Your task to perform on an android device: delete a single message in the gmail app Image 0: 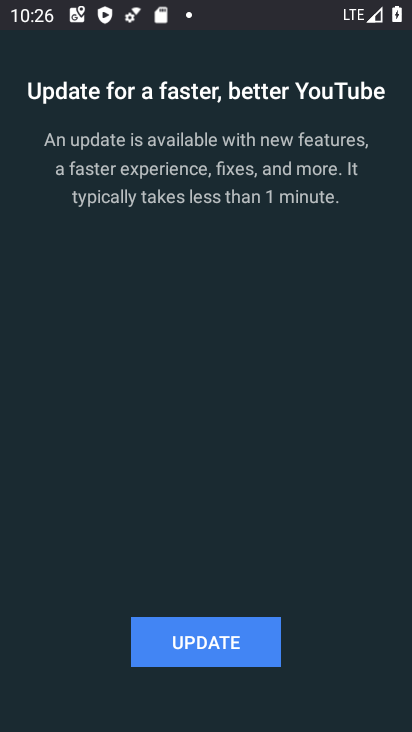
Step 0: press back button
Your task to perform on an android device: delete a single message in the gmail app Image 1: 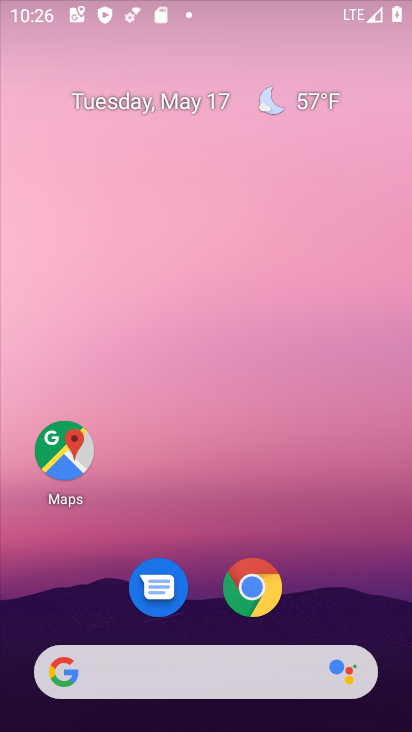
Step 1: drag from (366, 635) to (279, 93)
Your task to perform on an android device: delete a single message in the gmail app Image 2: 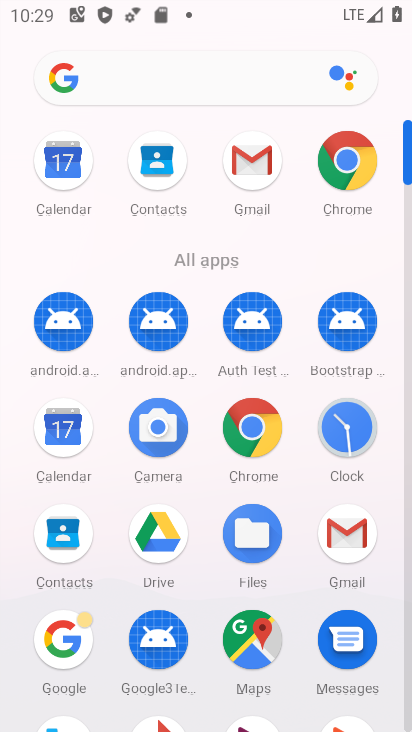
Step 2: click (321, 544)
Your task to perform on an android device: delete a single message in the gmail app Image 3: 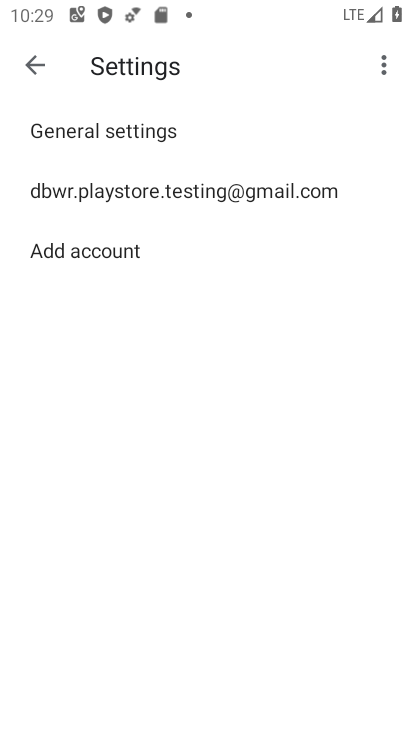
Step 3: task complete